Your task to perform on an android device: Search for sushi restaurants on Maps Image 0: 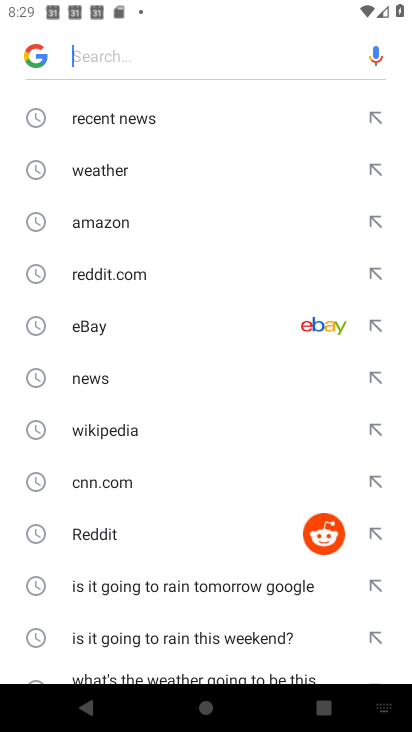
Step 0: press home button
Your task to perform on an android device: Search for sushi restaurants on Maps Image 1: 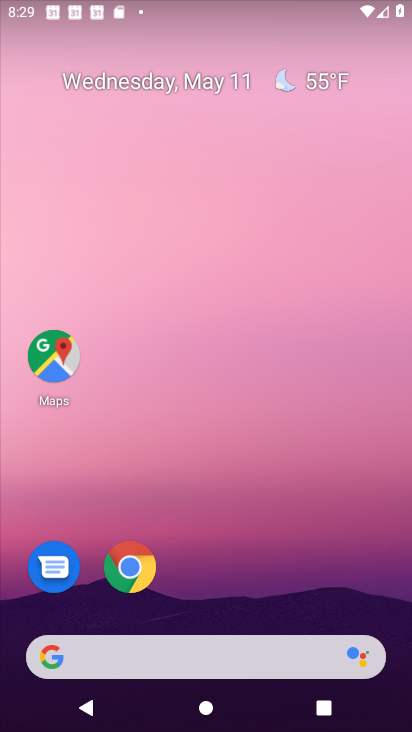
Step 1: drag from (307, 632) to (376, 14)
Your task to perform on an android device: Search for sushi restaurants on Maps Image 2: 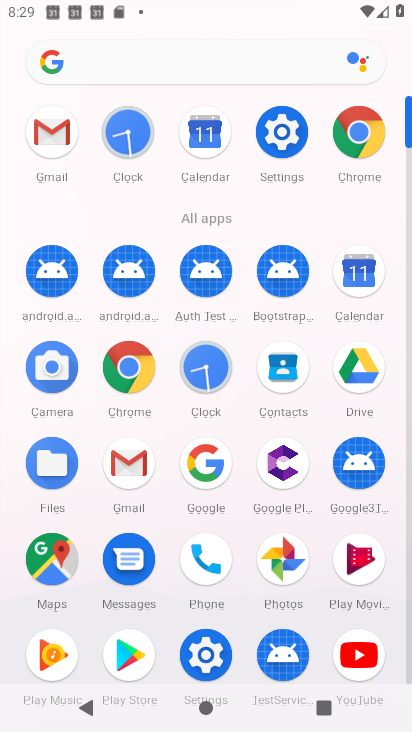
Step 2: click (56, 562)
Your task to perform on an android device: Search for sushi restaurants on Maps Image 3: 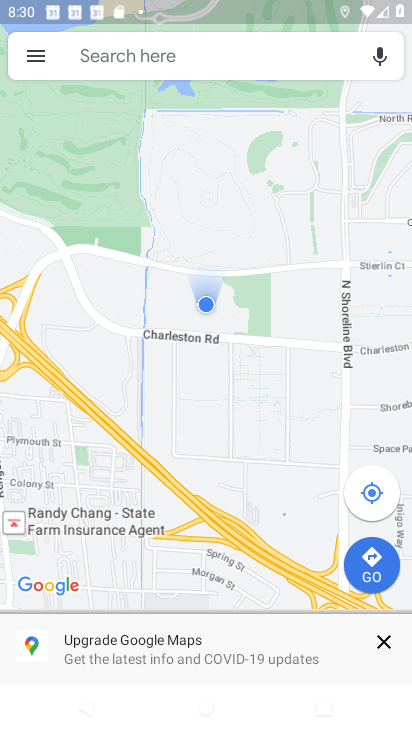
Step 3: click (159, 68)
Your task to perform on an android device: Search for sushi restaurants on Maps Image 4: 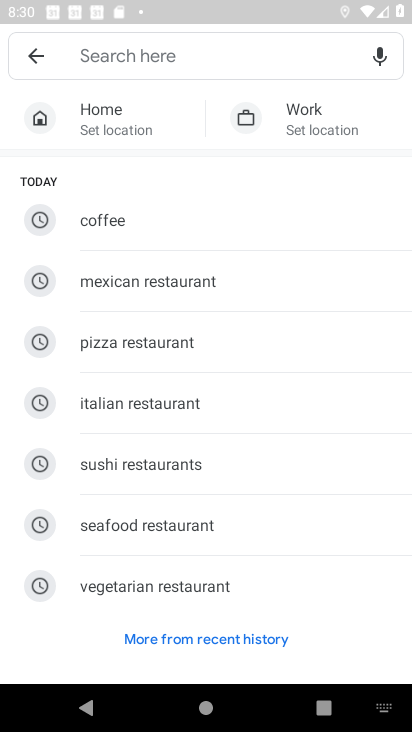
Step 4: click (189, 467)
Your task to perform on an android device: Search for sushi restaurants on Maps Image 5: 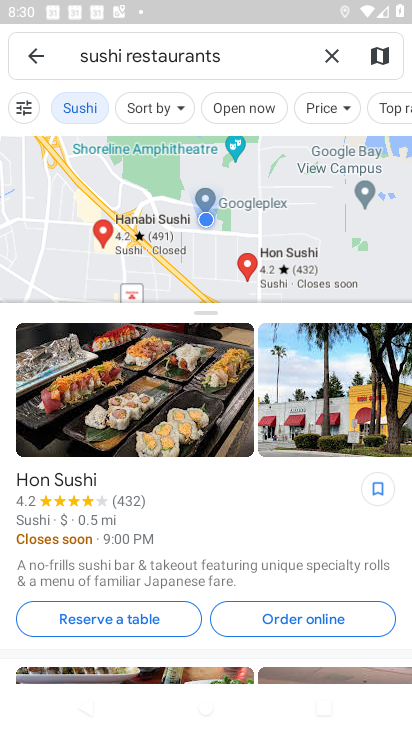
Step 5: task complete